Your task to perform on an android device: Go to Google Image 0: 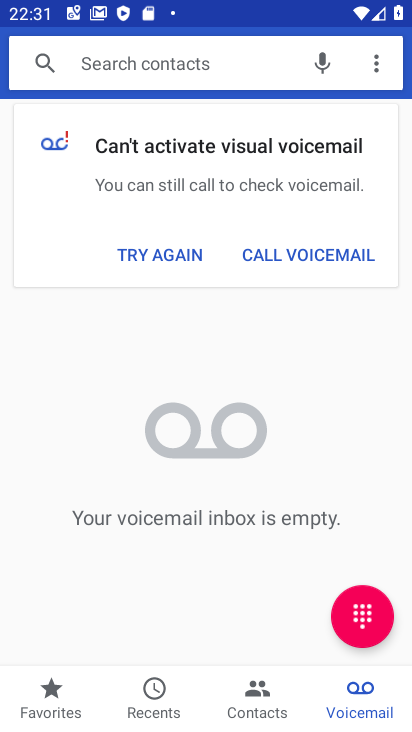
Step 0: press home button
Your task to perform on an android device: Go to Google Image 1: 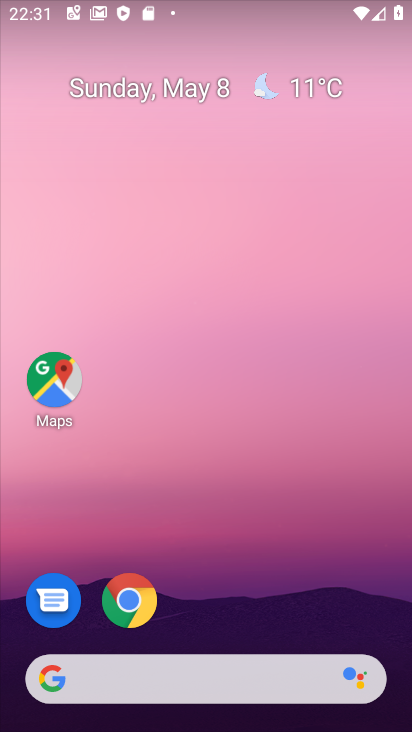
Step 1: click (185, 677)
Your task to perform on an android device: Go to Google Image 2: 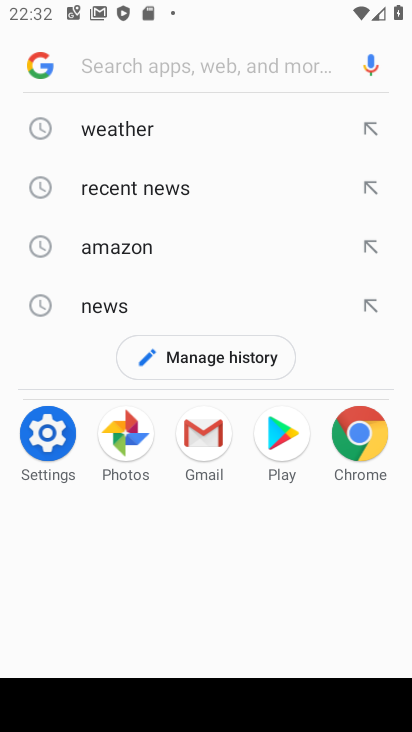
Step 2: click (41, 88)
Your task to perform on an android device: Go to Google Image 3: 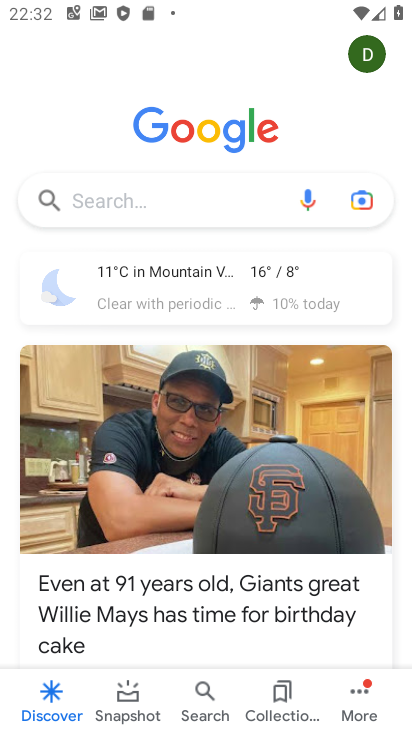
Step 3: task complete